Your task to perform on an android device: Open notification settings Image 0: 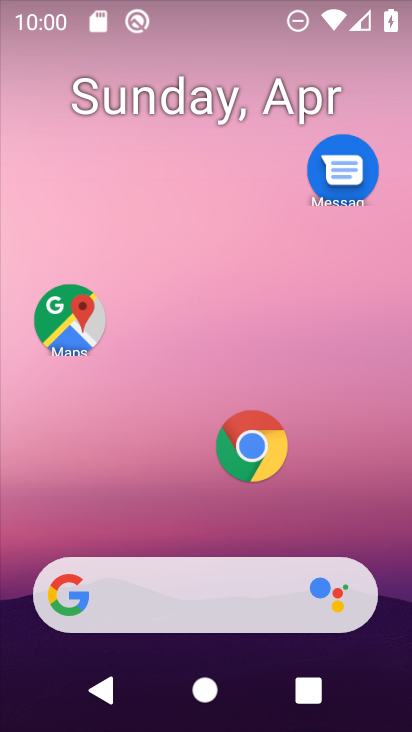
Step 0: drag from (223, 357) to (240, 121)
Your task to perform on an android device: Open notification settings Image 1: 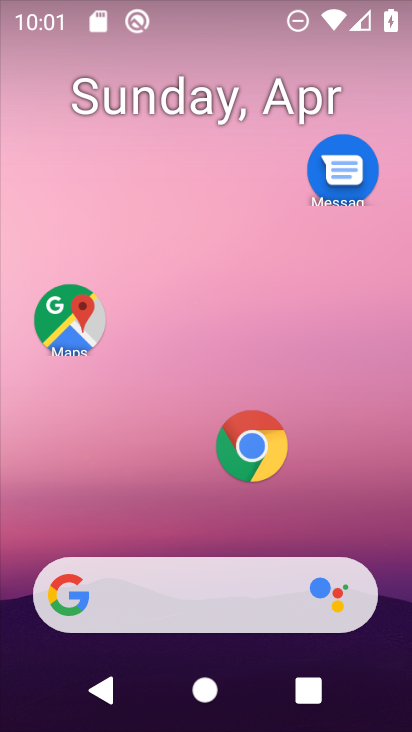
Step 1: click (269, 83)
Your task to perform on an android device: Open notification settings Image 2: 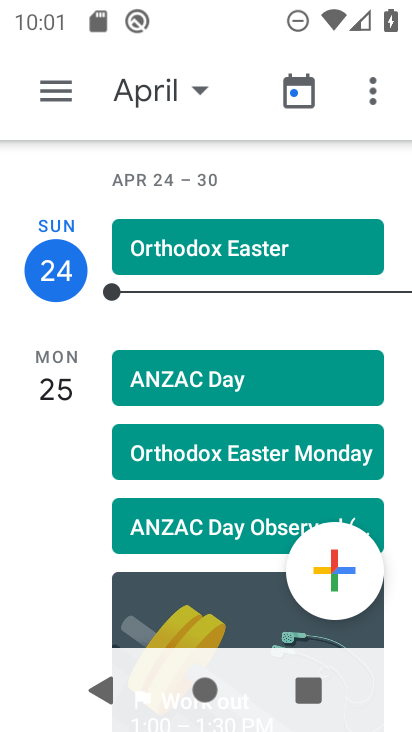
Step 2: press home button
Your task to perform on an android device: Open notification settings Image 3: 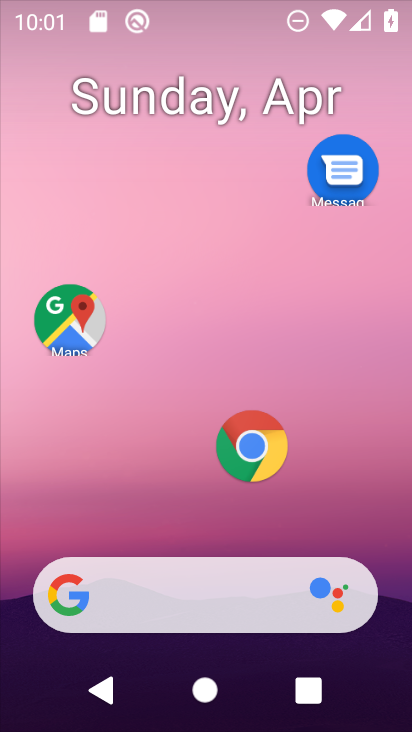
Step 3: drag from (213, 598) to (261, 97)
Your task to perform on an android device: Open notification settings Image 4: 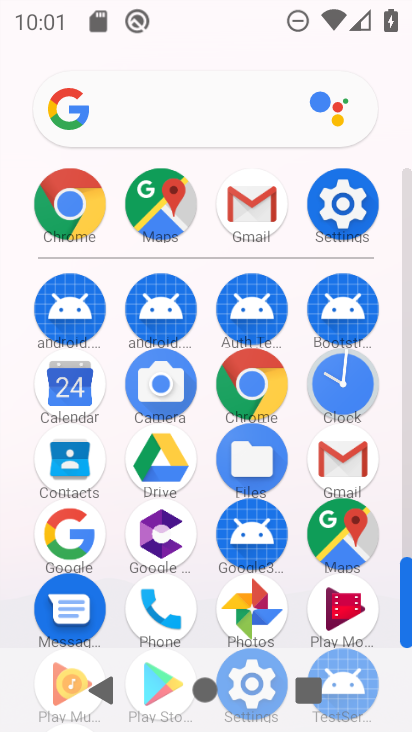
Step 4: click (336, 215)
Your task to perform on an android device: Open notification settings Image 5: 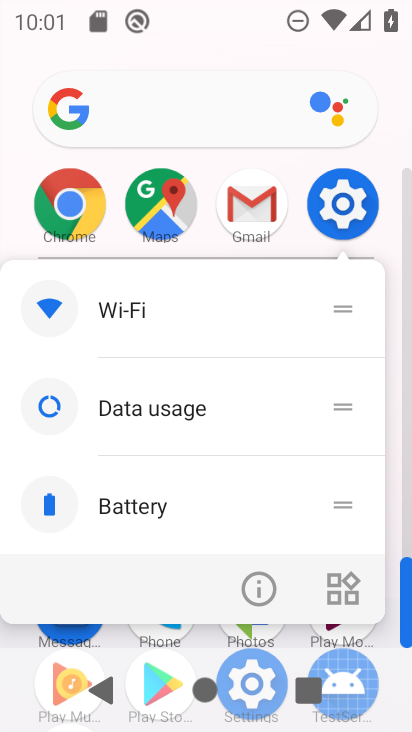
Step 5: click (266, 574)
Your task to perform on an android device: Open notification settings Image 6: 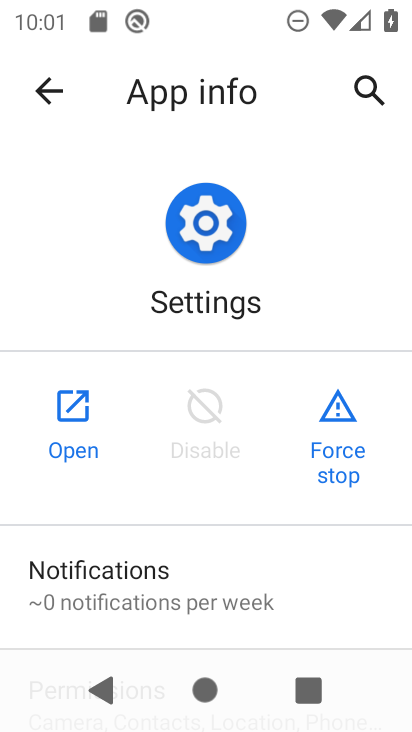
Step 6: click (75, 390)
Your task to perform on an android device: Open notification settings Image 7: 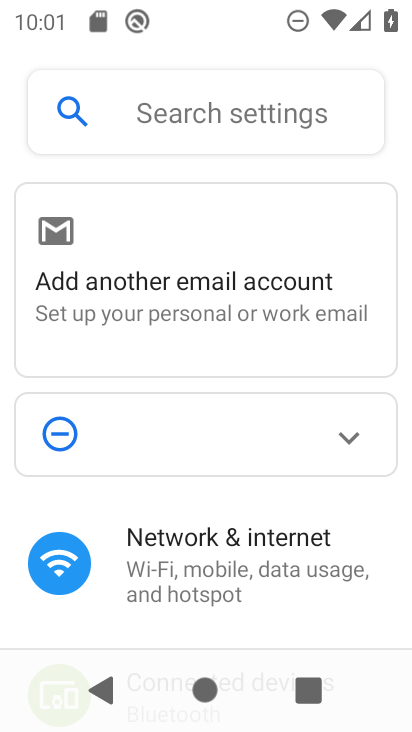
Step 7: drag from (218, 572) to (304, 41)
Your task to perform on an android device: Open notification settings Image 8: 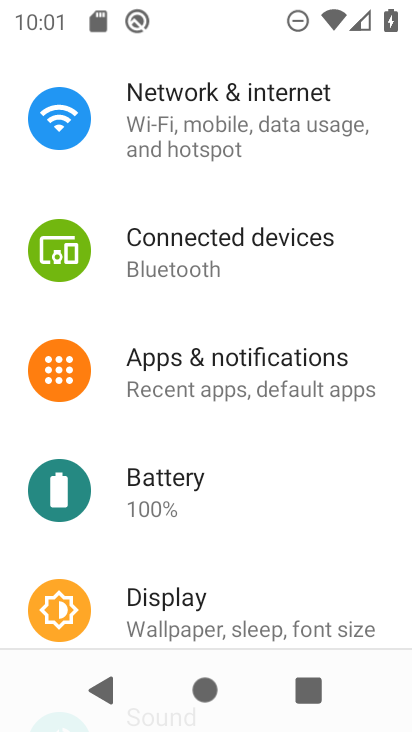
Step 8: drag from (262, 551) to (343, 240)
Your task to perform on an android device: Open notification settings Image 9: 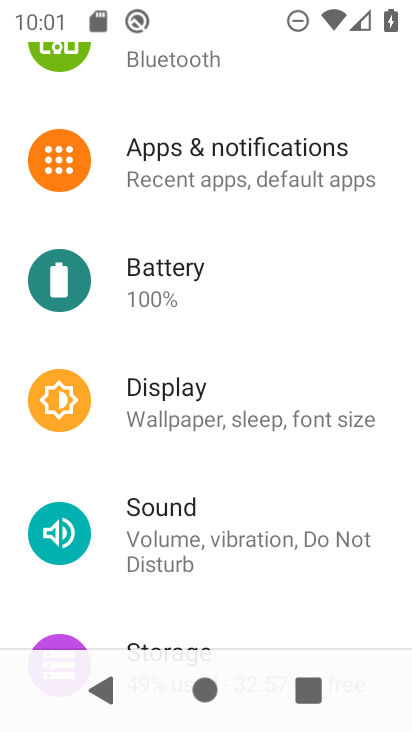
Step 9: click (261, 161)
Your task to perform on an android device: Open notification settings Image 10: 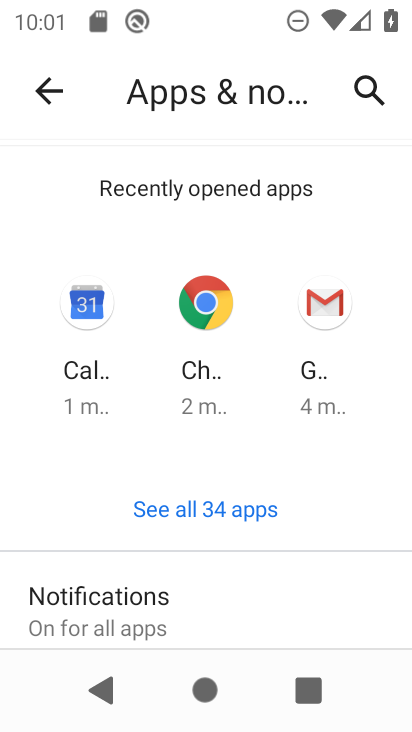
Step 10: drag from (223, 470) to (244, 78)
Your task to perform on an android device: Open notification settings Image 11: 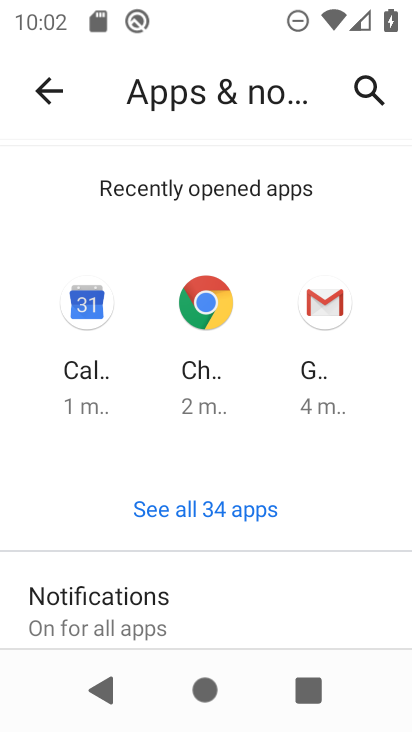
Step 11: drag from (212, 560) to (213, 163)
Your task to perform on an android device: Open notification settings Image 12: 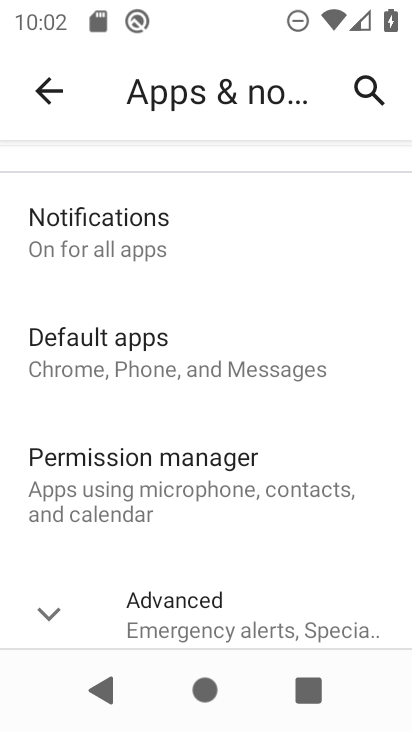
Step 12: click (160, 313)
Your task to perform on an android device: Open notification settings Image 13: 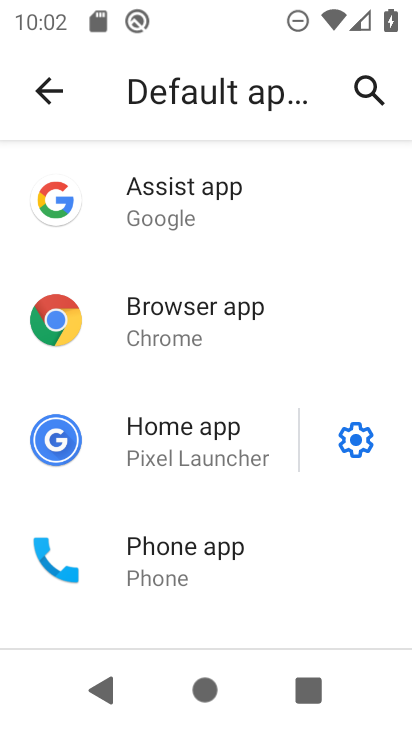
Step 13: drag from (158, 253) to (318, 133)
Your task to perform on an android device: Open notification settings Image 14: 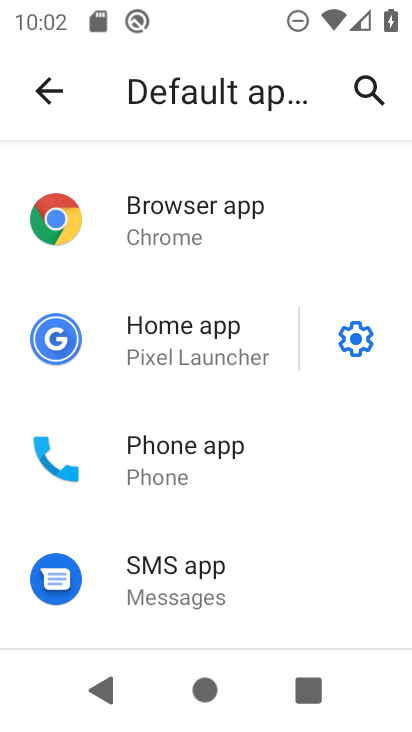
Step 14: click (47, 91)
Your task to perform on an android device: Open notification settings Image 15: 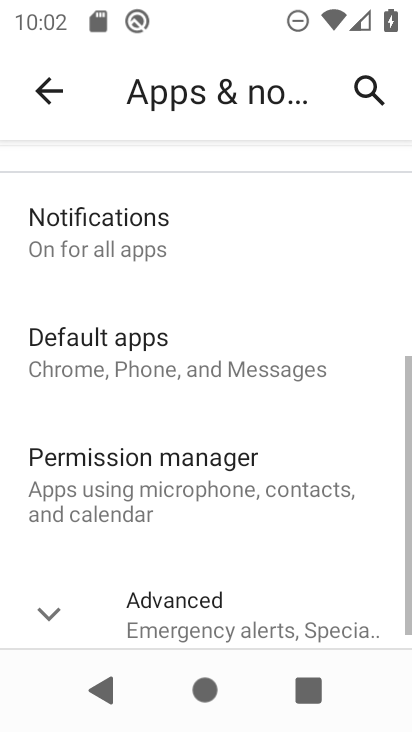
Step 15: click (177, 232)
Your task to perform on an android device: Open notification settings Image 16: 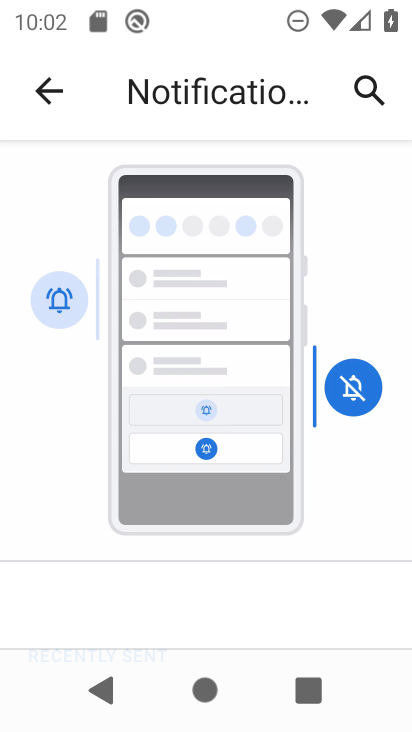
Step 16: task complete